Your task to perform on an android device: Open the stopwatch Image 0: 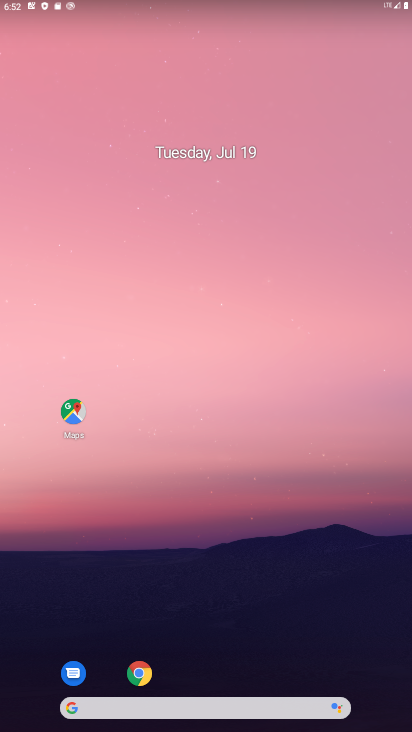
Step 0: drag from (368, 687) to (196, 18)
Your task to perform on an android device: Open the stopwatch Image 1: 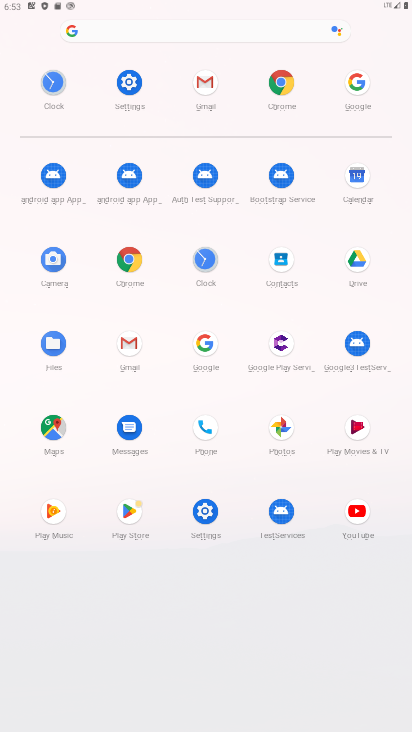
Step 1: click (203, 264)
Your task to perform on an android device: Open the stopwatch Image 2: 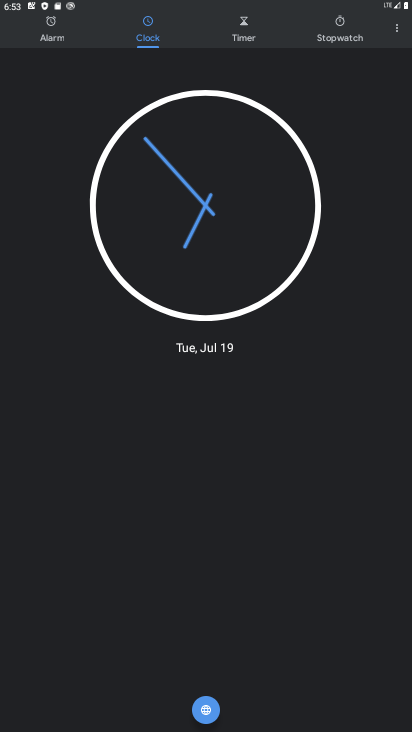
Step 2: click (334, 26)
Your task to perform on an android device: Open the stopwatch Image 3: 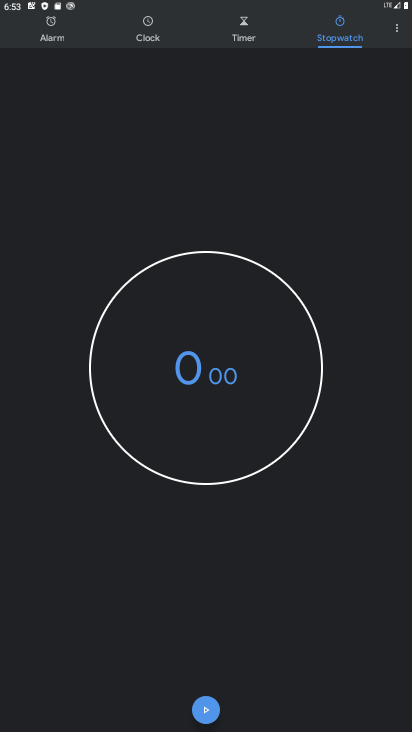
Step 3: task complete